Your task to perform on an android device: Open Google Maps and go to "Timeline" Image 0: 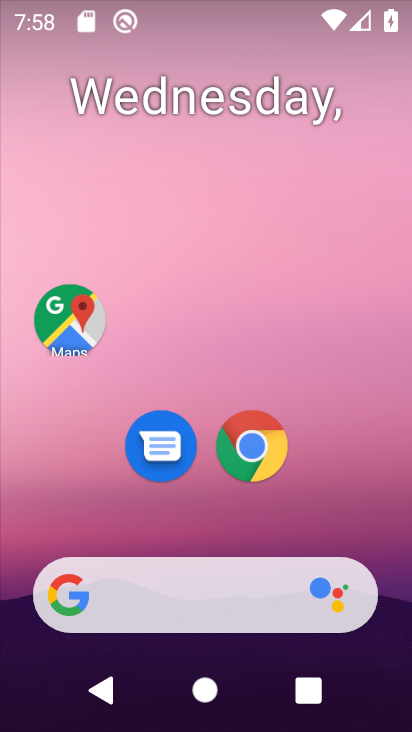
Step 0: drag from (221, 513) to (256, 19)
Your task to perform on an android device: Open Google Maps and go to "Timeline" Image 1: 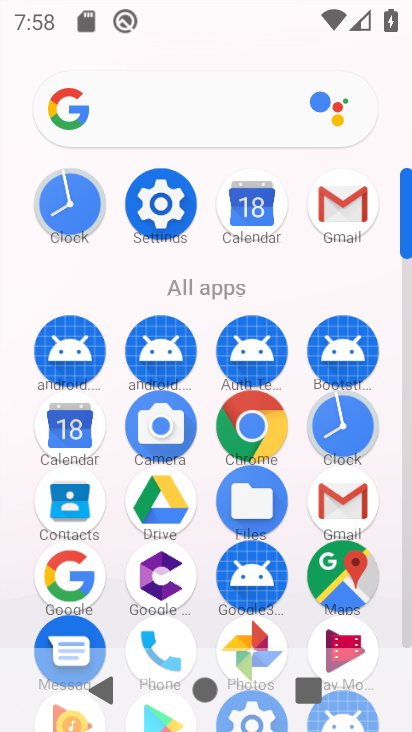
Step 1: click (348, 576)
Your task to perform on an android device: Open Google Maps and go to "Timeline" Image 2: 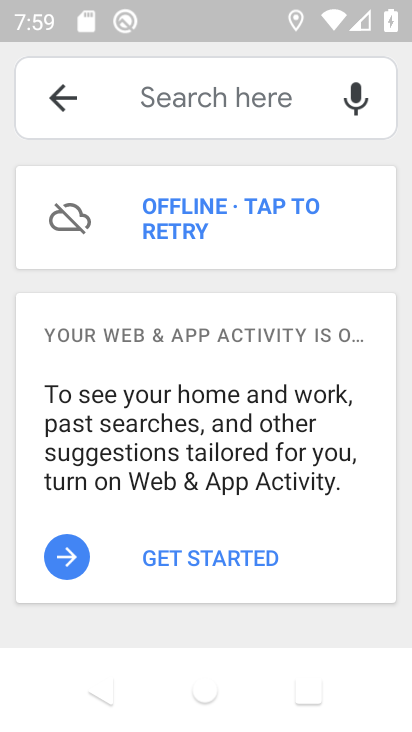
Step 2: click (63, 104)
Your task to perform on an android device: Open Google Maps and go to "Timeline" Image 3: 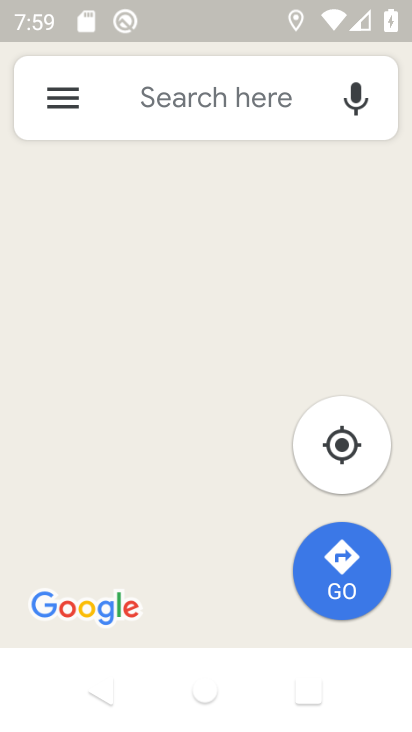
Step 3: click (63, 104)
Your task to perform on an android device: Open Google Maps and go to "Timeline" Image 4: 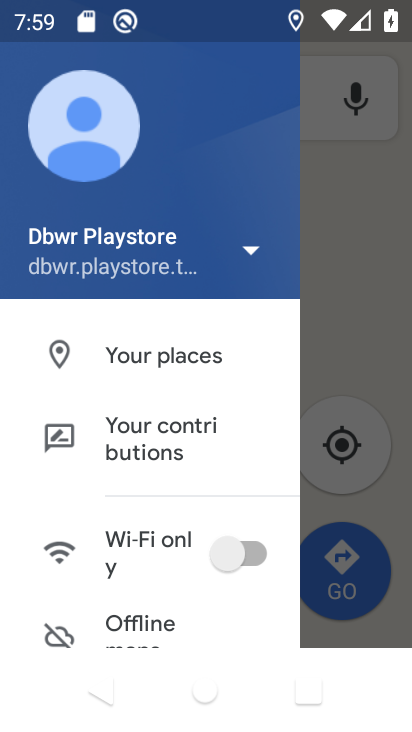
Step 4: press back button
Your task to perform on an android device: Open Google Maps and go to "Timeline" Image 5: 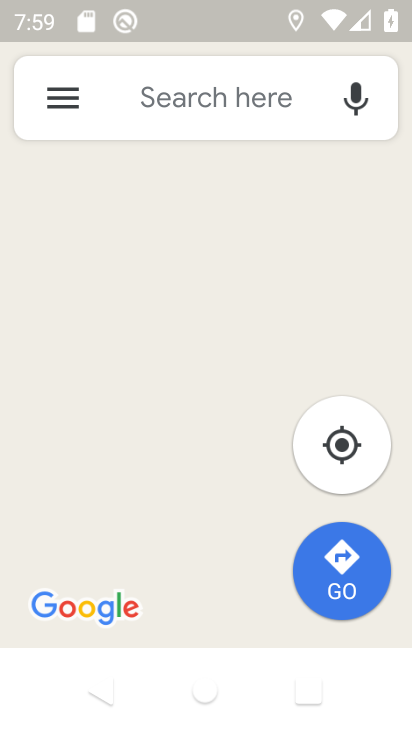
Step 5: drag from (250, 187) to (218, 608)
Your task to perform on an android device: Open Google Maps and go to "Timeline" Image 6: 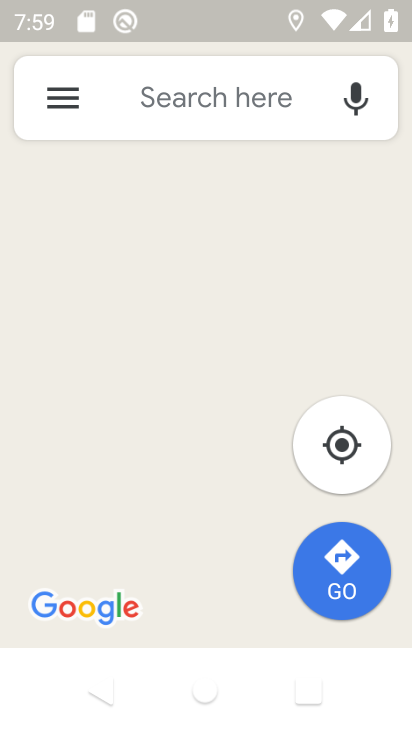
Step 6: drag from (204, 92) to (210, 526)
Your task to perform on an android device: Open Google Maps and go to "Timeline" Image 7: 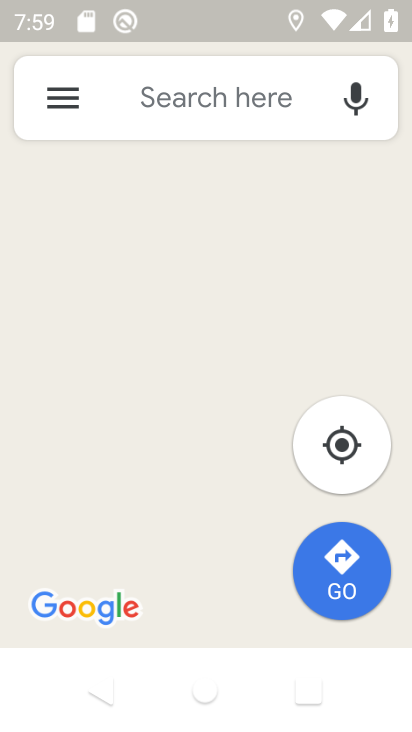
Step 7: click (63, 92)
Your task to perform on an android device: Open Google Maps and go to "Timeline" Image 8: 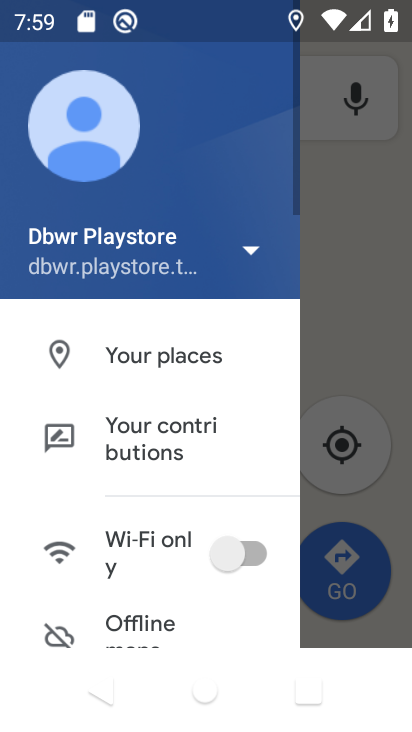
Step 8: task complete